Your task to perform on an android device: turn off location Image 0: 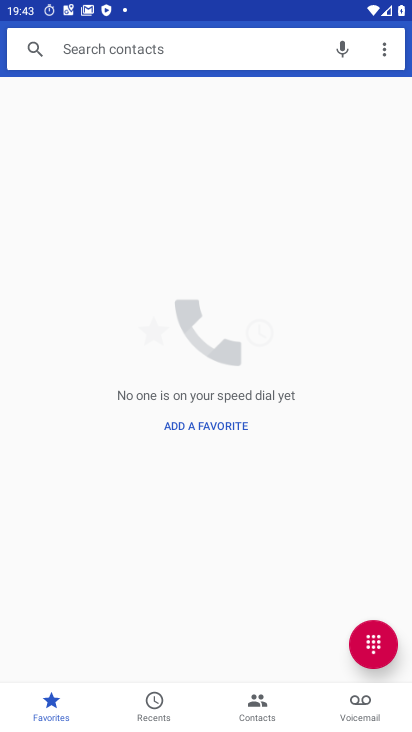
Step 0: press home button
Your task to perform on an android device: turn off location Image 1: 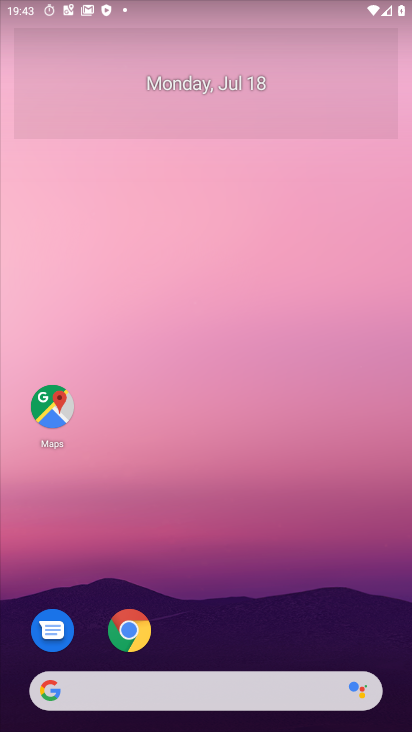
Step 1: drag from (190, 553) to (87, 74)
Your task to perform on an android device: turn off location Image 2: 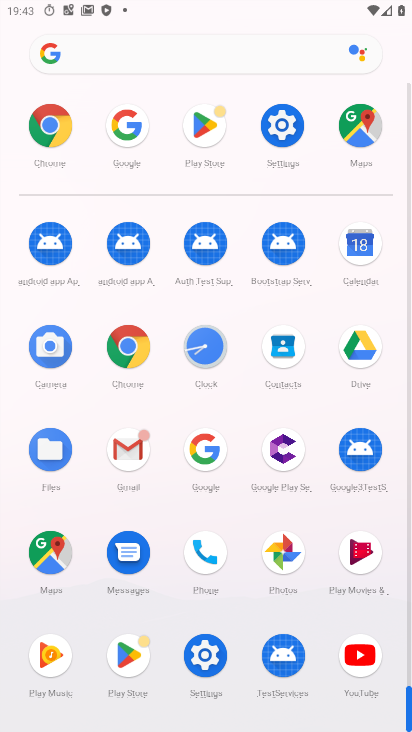
Step 2: click (276, 133)
Your task to perform on an android device: turn off location Image 3: 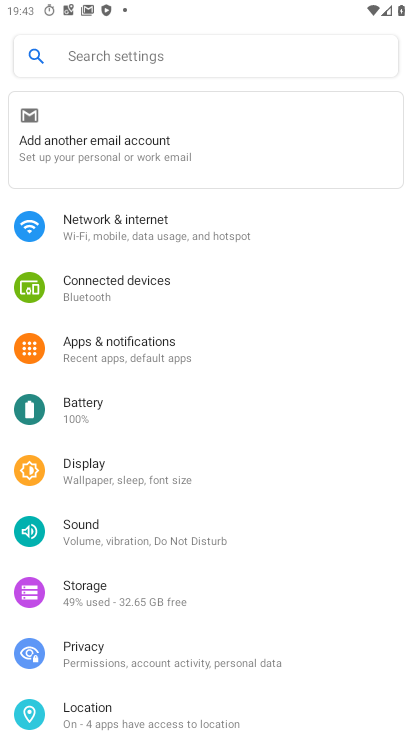
Step 3: drag from (140, 642) to (123, 230)
Your task to perform on an android device: turn off location Image 4: 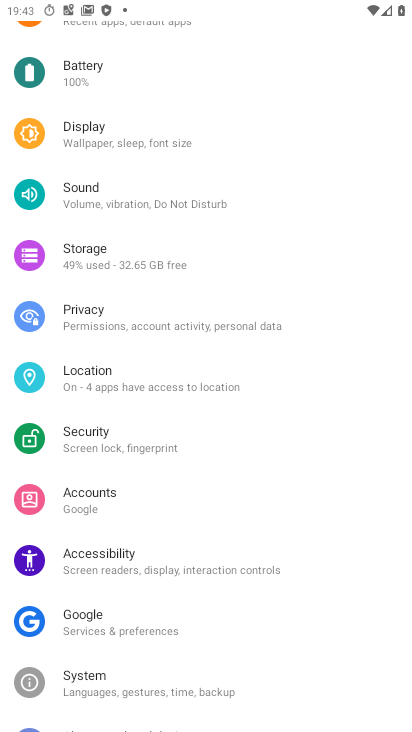
Step 4: click (65, 379)
Your task to perform on an android device: turn off location Image 5: 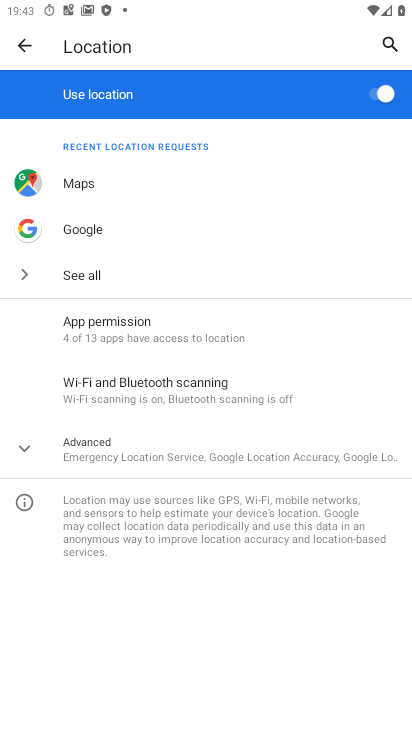
Step 5: click (375, 98)
Your task to perform on an android device: turn off location Image 6: 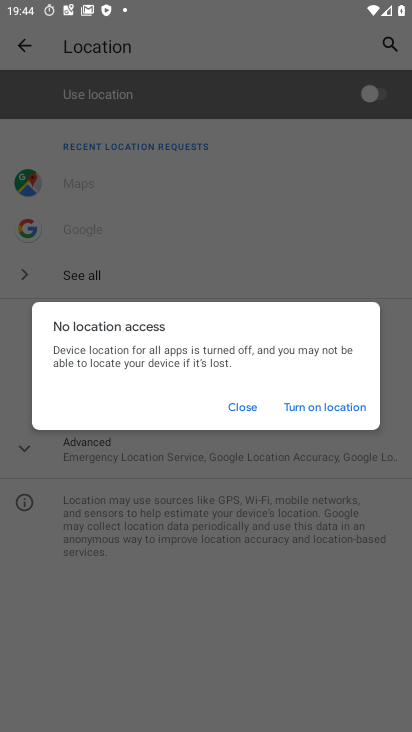
Step 6: task complete